Your task to perform on an android device: Open Youtube and go to the subscriptions tab Image 0: 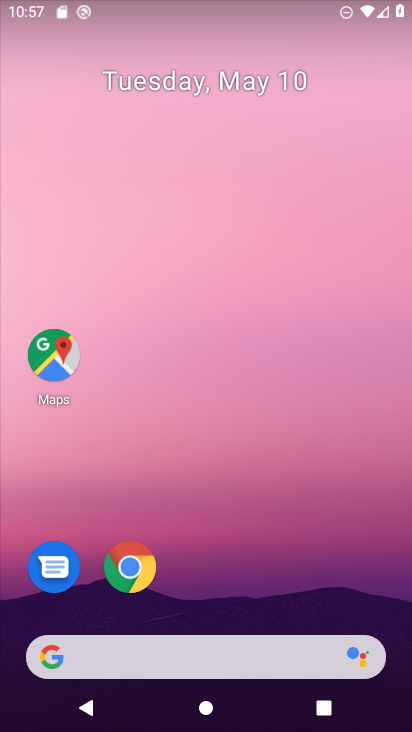
Step 0: drag from (178, 486) to (231, 129)
Your task to perform on an android device: Open Youtube and go to the subscriptions tab Image 1: 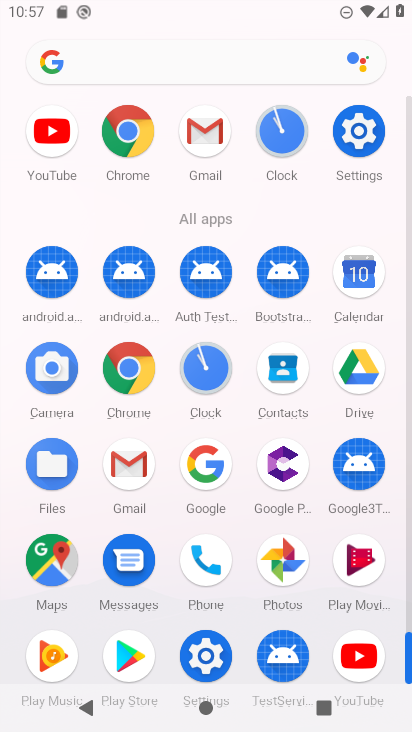
Step 1: click (353, 665)
Your task to perform on an android device: Open Youtube and go to the subscriptions tab Image 2: 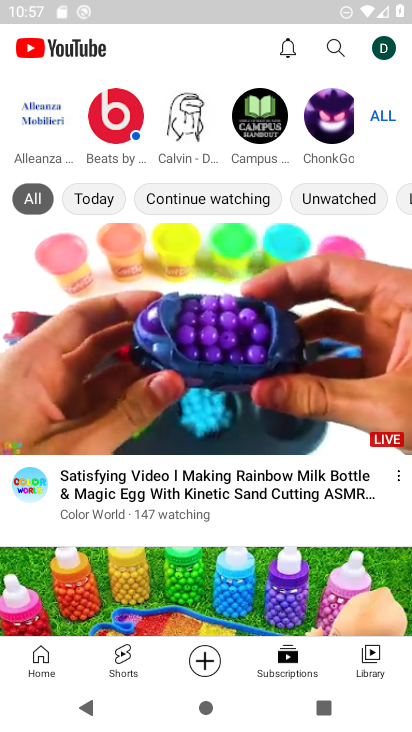
Step 2: click (301, 658)
Your task to perform on an android device: Open Youtube and go to the subscriptions tab Image 3: 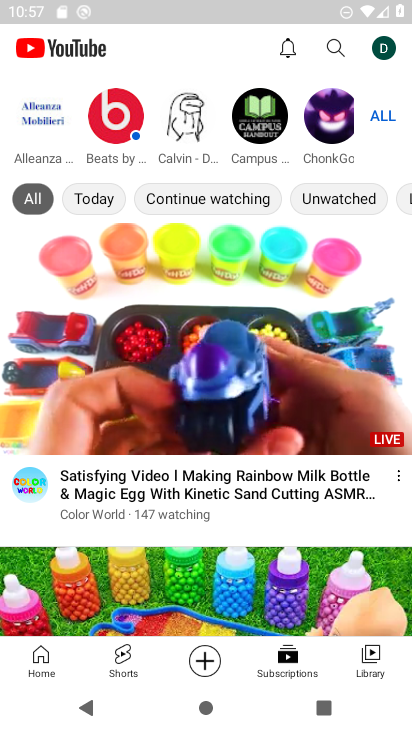
Step 3: task complete